Your task to perform on an android device: Do I have any events this weekend? Image 0: 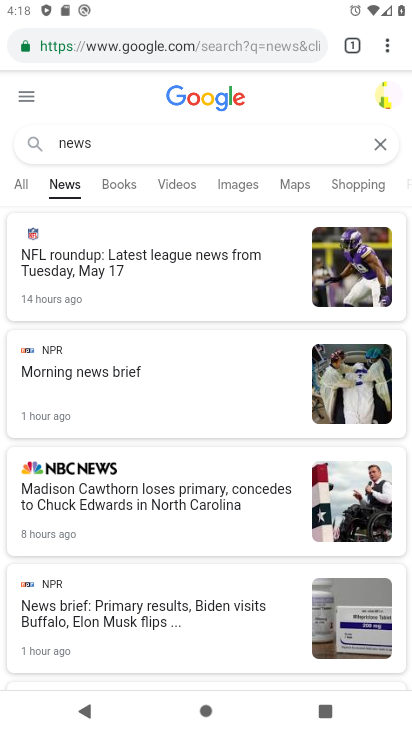
Step 0: press home button
Your task to perform on an android device: Do I have any events this weekend? Image 1: 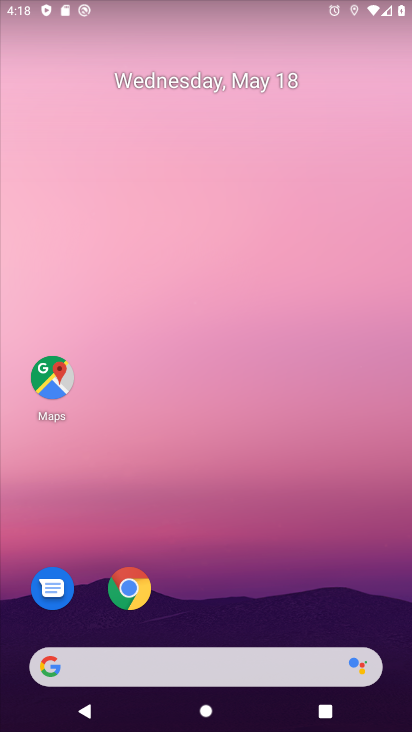
Step 1: drag from (161, 489) to (241, 64)
Your task to perform on an android device: Do I have any events this weekend? Image 2: 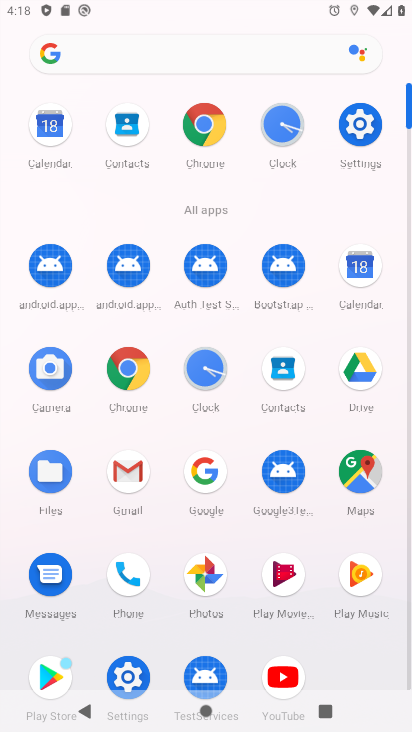
Step 2: click (360, 258)
Your task to perform on an android device: Do I have any events this weekend? Image 3: 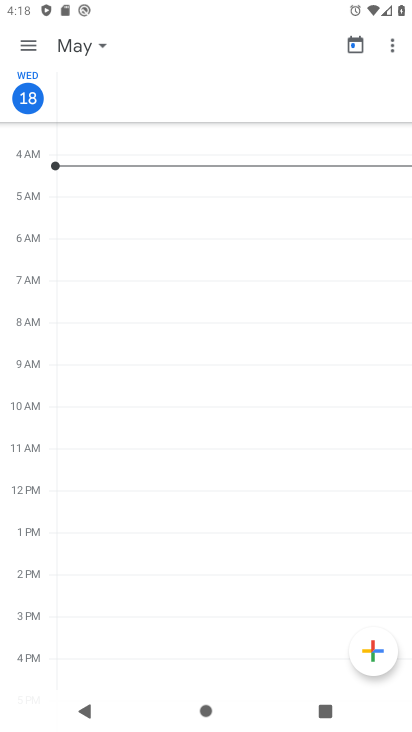
Step 3: click (29, 45)
Your task to perform on an android device: Do I have any events this weekend? Image 4: 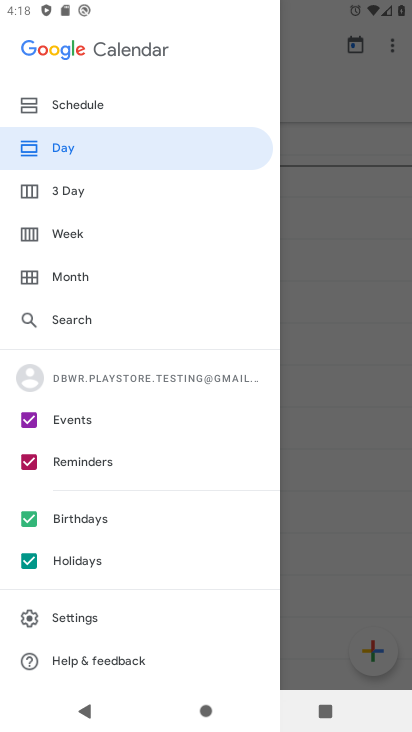
Step 4: click (63, 201)
Your task to perform on an android device: Do I have any events this weekend? Image 5: 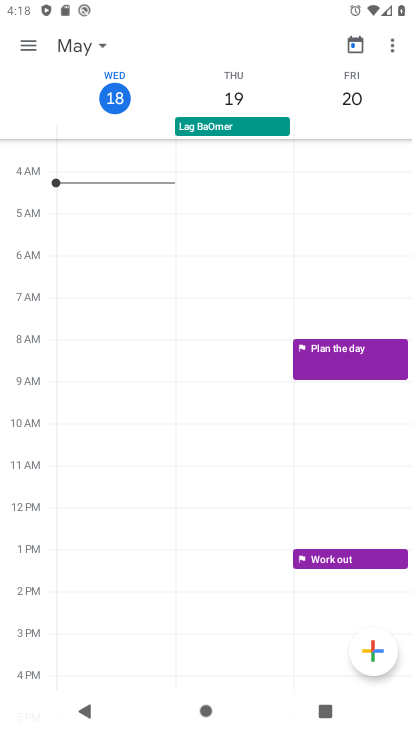
Step 5: task complete